Your task to perform on an android device: Open sound settings Image 0: 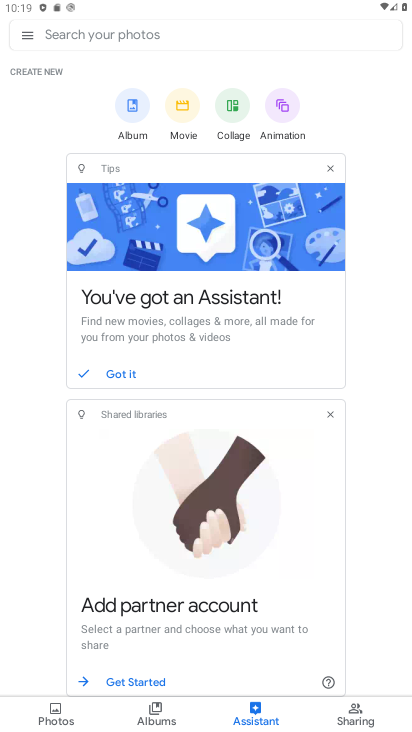
Step 0: press home button
Your task to perform on an android device: Open sound settings Image 1: 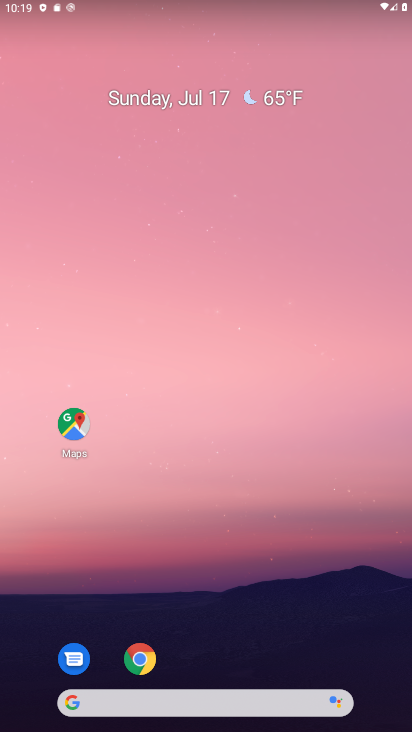
Step 1: drag from (211, 721) to (91, 9)
Your task to perform on an android device: Open sound settings Image 2: 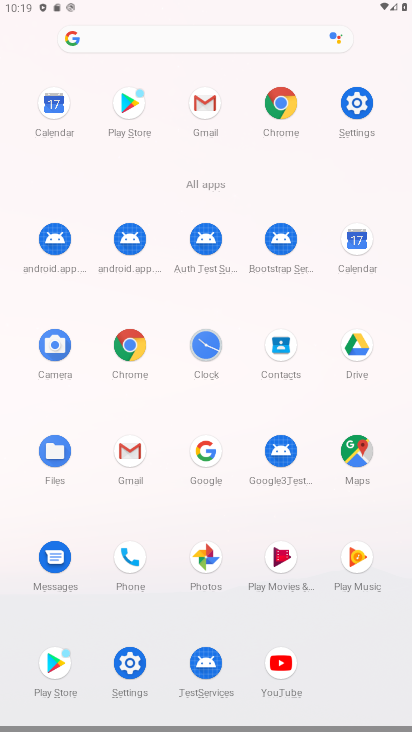
Step 2: click (139, 657)
Your task to perform on an android device: Open sound settings Image 3: 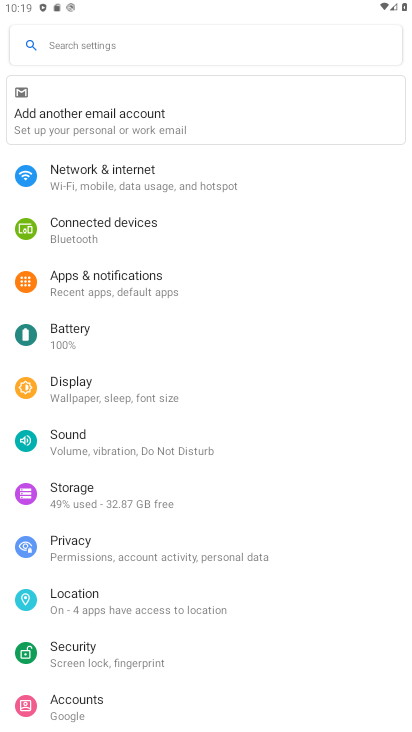
Step 3: click (75, 448)
Your task to perform on an android device: Open sound settings Image 4: 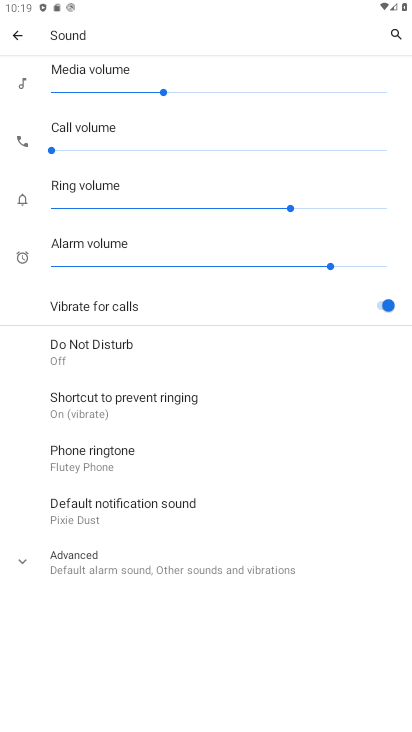
Step 4: task complete